Your task to perform on an android device: change the clock display to show seconds Image 0: 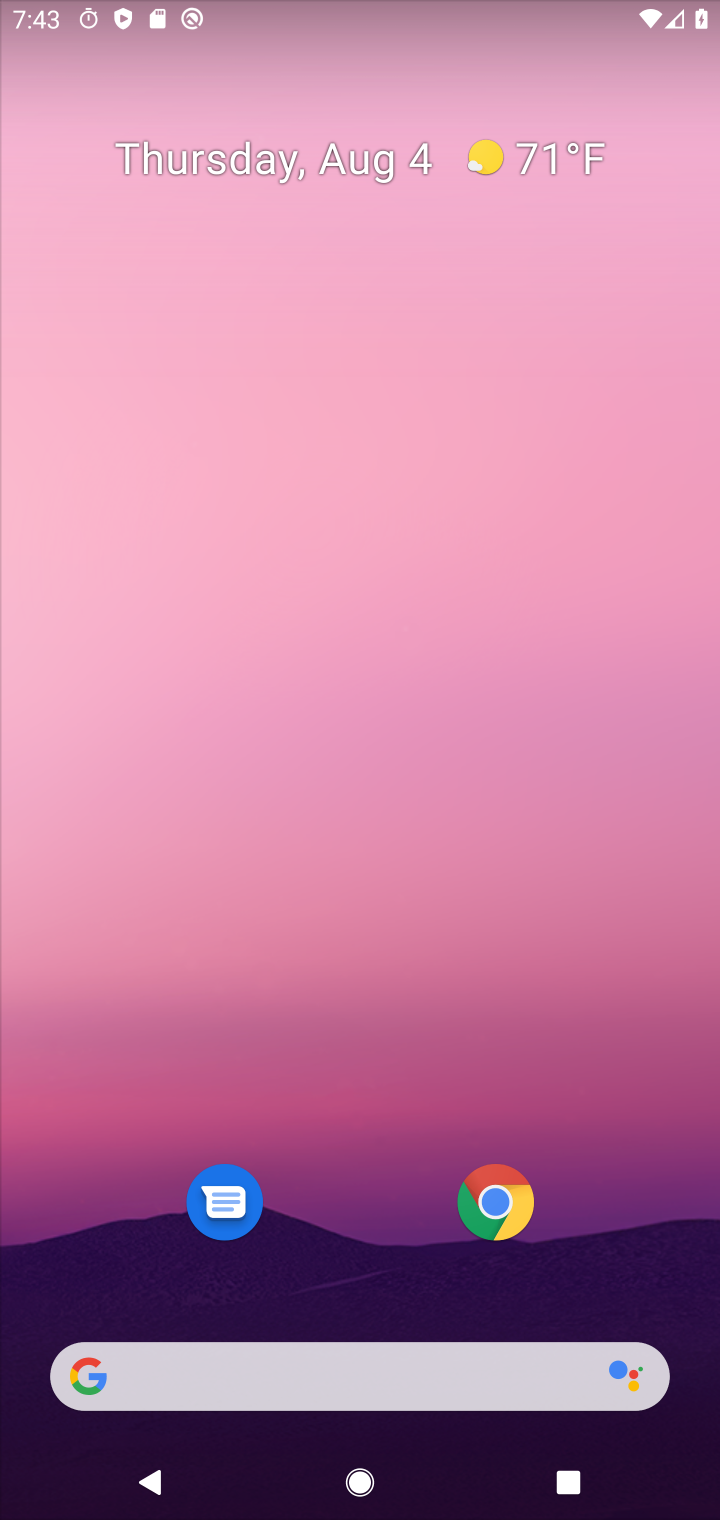
Step 0: drag from (389, 884) to (399, 294)
Your task to perform on an android device: change the clock display to show seconds Image 1: 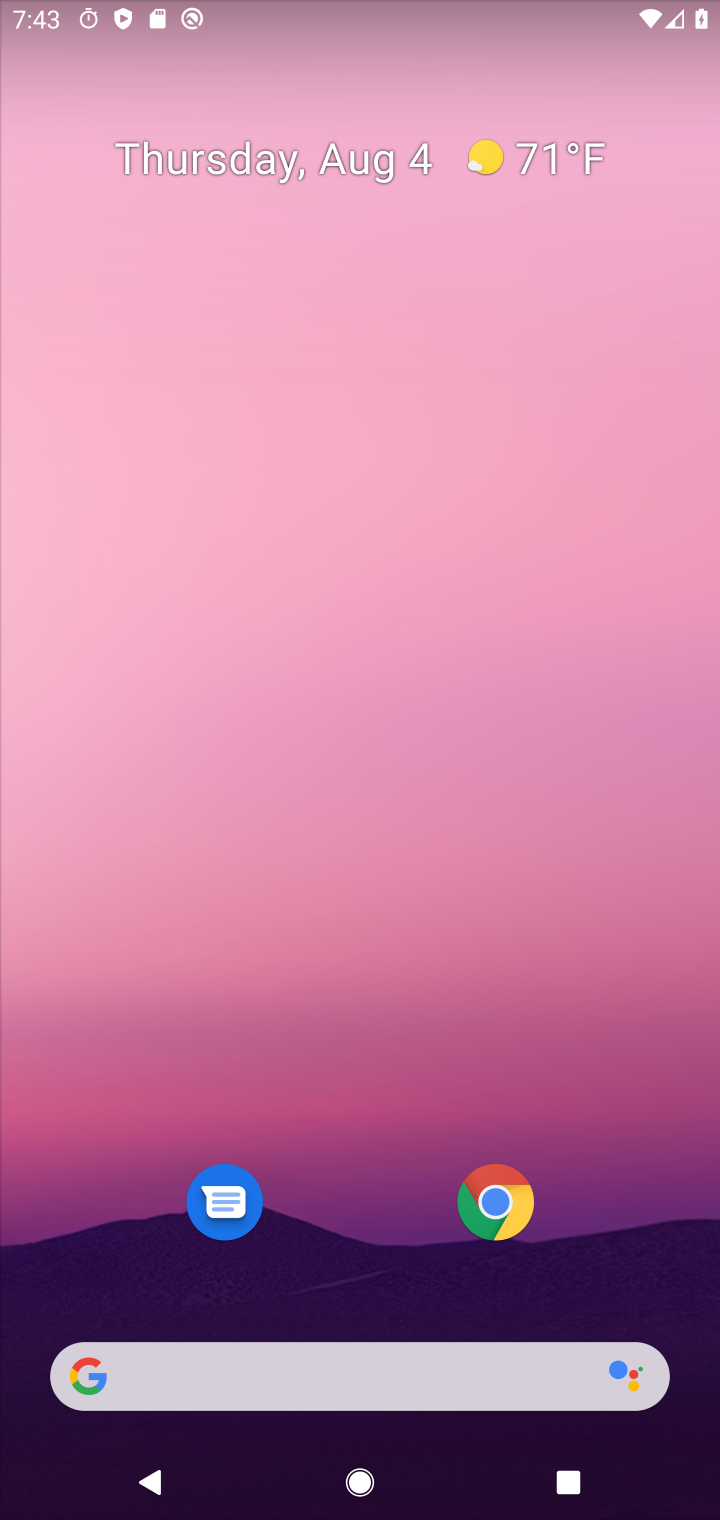
Step 1: drag from (444, 1189) to (448, 470)
Your task to perform on an android device: change the clock display to show seconds Image 2: 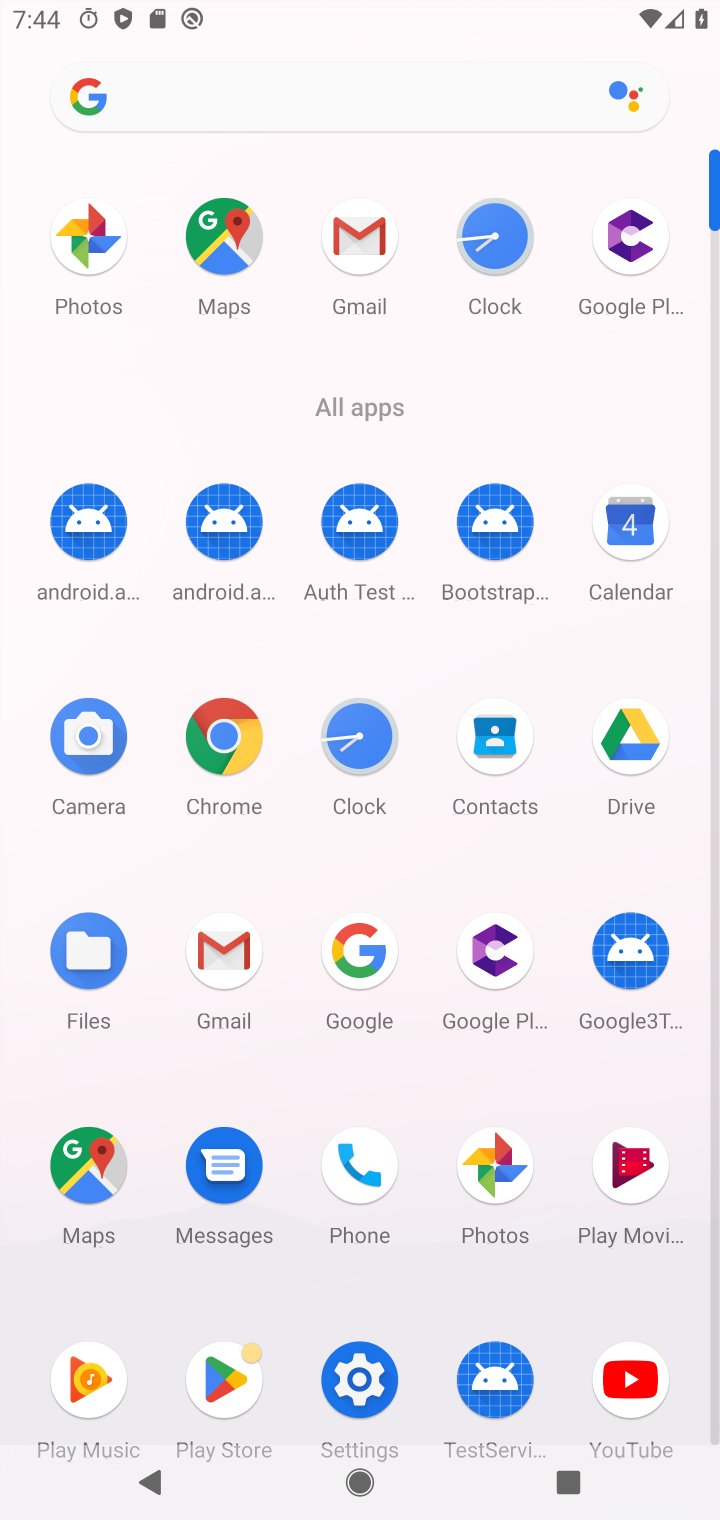
Step 2: click (364, 736)
Your task to perform on an android device: change the clock display to show seconds Image 3: 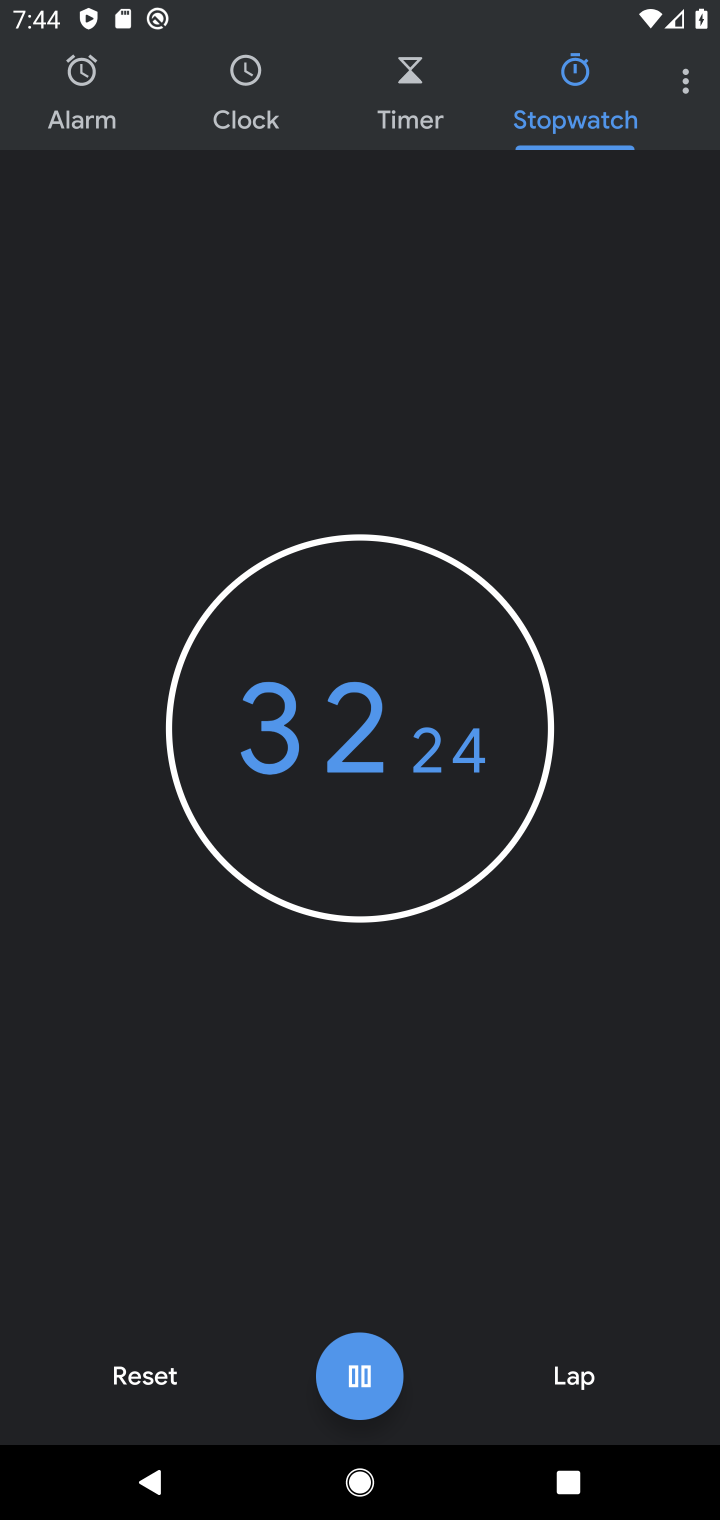
Step 3: drag from (525, 916) to (525, 667)
Your task to perform on an android device: change the clock display to show seconds Image 4: 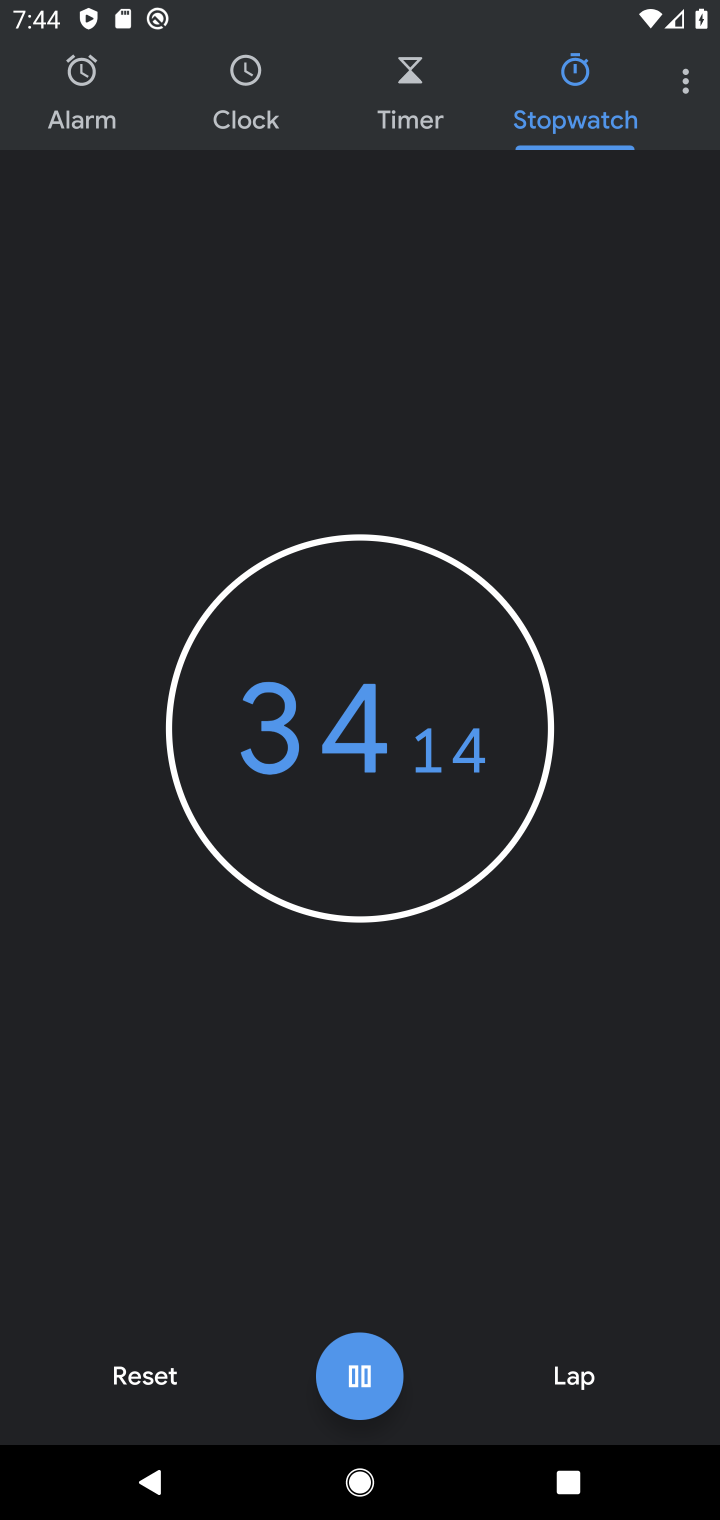
Step 4: drag from (684, 95) to (481, 157)
Your task to perform on an android device: change the clock display to show seconds Image 5: 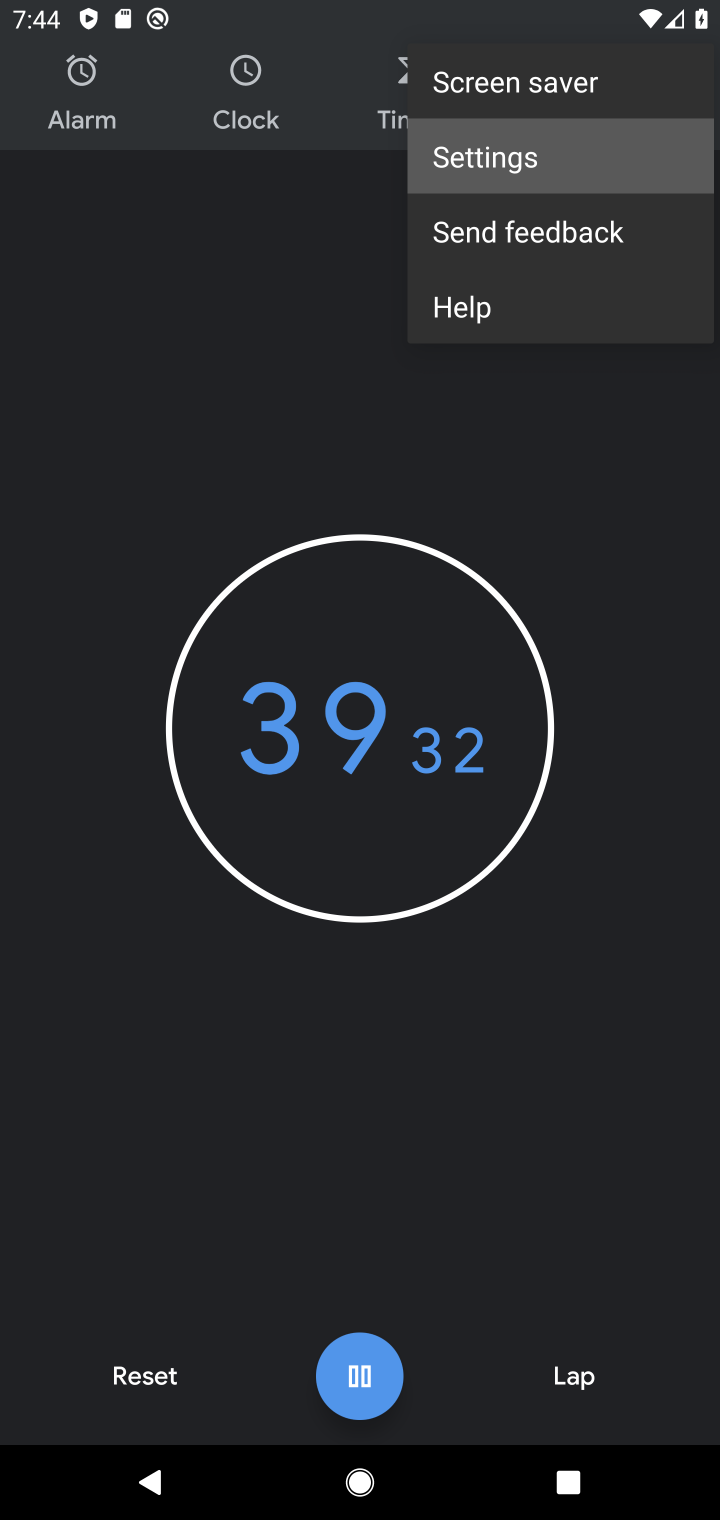
Step 5: click (481, 157)
Your task to perform on an android device: change the clock display to show seconds Image 6: 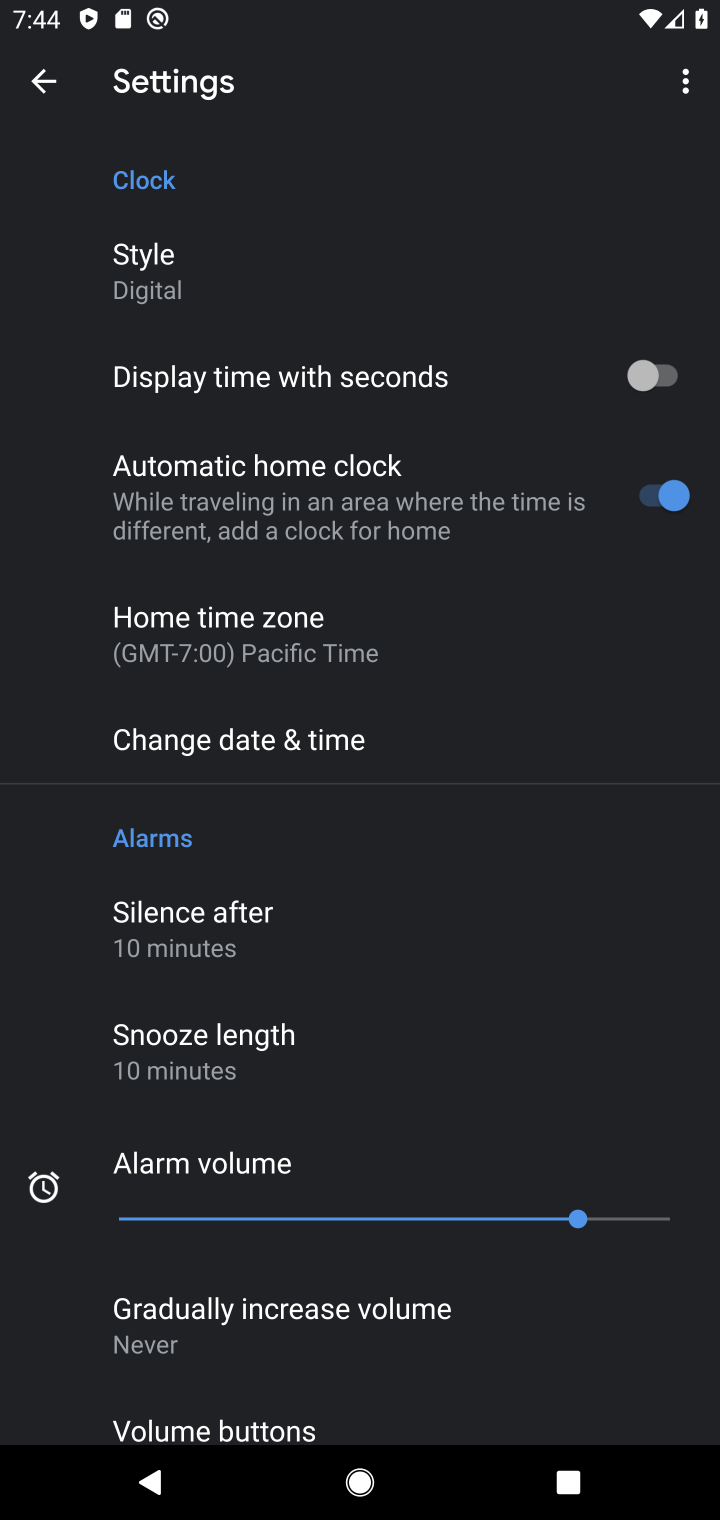
Step 6: click (387, 372)
Your task to perform on an android device: change the clock display to show seconds Image 7: 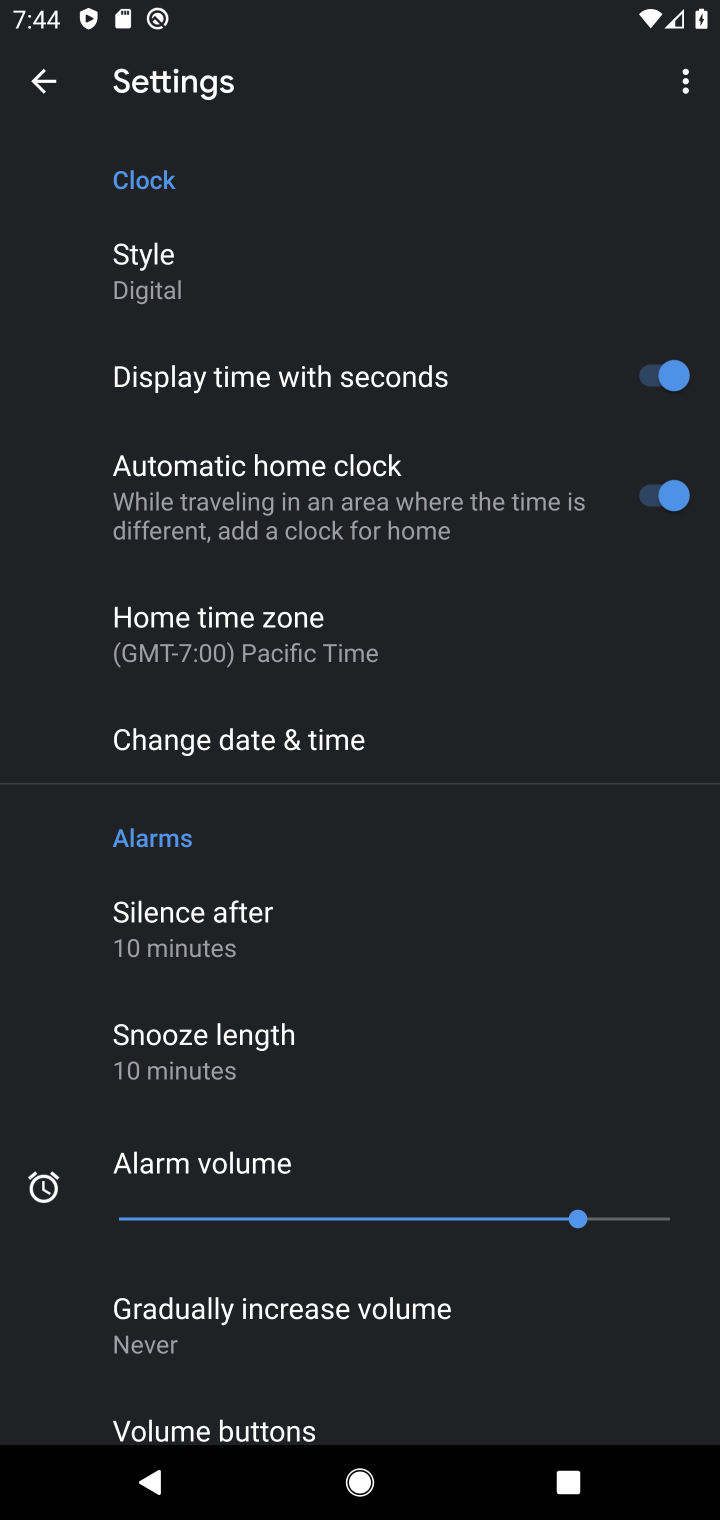
Step 7: task complete